Your task to perform on an android device: move a message to another label in the gmail app Image 0: 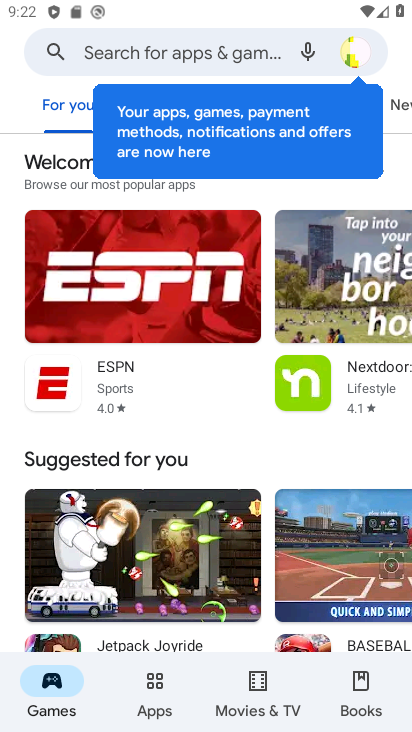
Step 0: press home button
Your task to perform on an android device: move a message to another label in the gmail app Image 1: 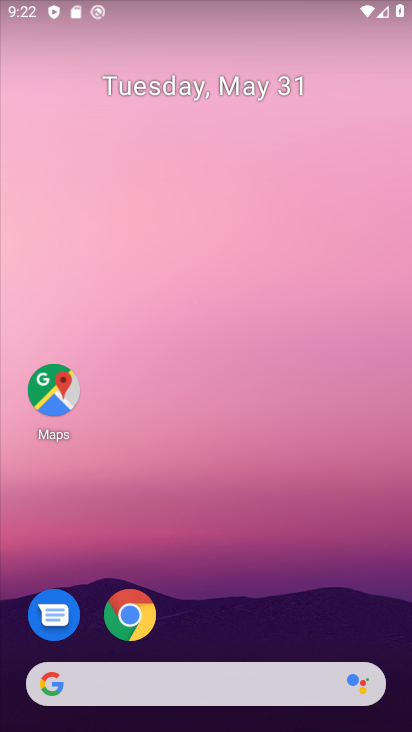
Step 1: drag from (249, 528) to (224, 39)
Your task to perform on an android device: move a message to another label in the gmail app Image 2: 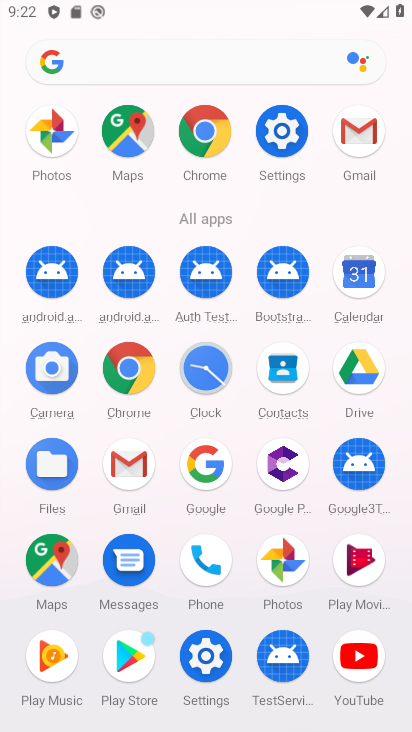
Step 2: click (129, 465)
Your task to perform on an android device: move a message to another label in the gmail app Image 3: 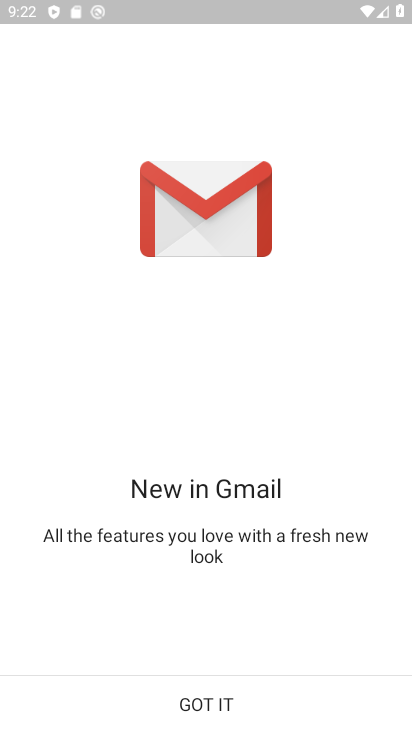
Step 3: click (221, 707)
Your task to perform on an android device: move a message to another label in the gmail app Image 4: 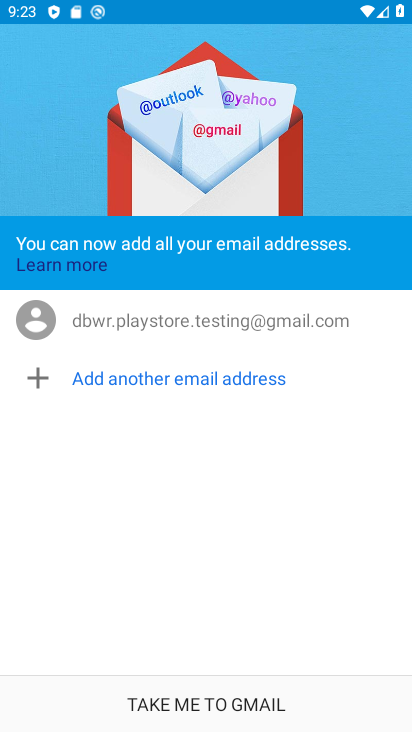
Step 4: click (206, 692)
Your task to perform on an android device: move a message to another label in the gmail app Image 5: 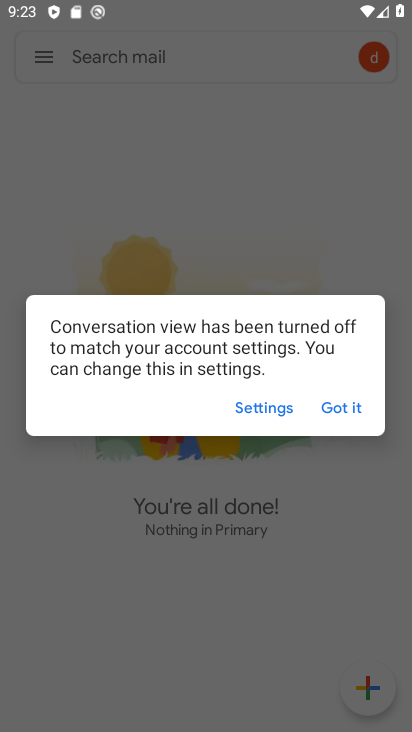
Step 5: click (348, 408)
Your task to perform on an android device: move a message to another label in the gmail app Image 6: 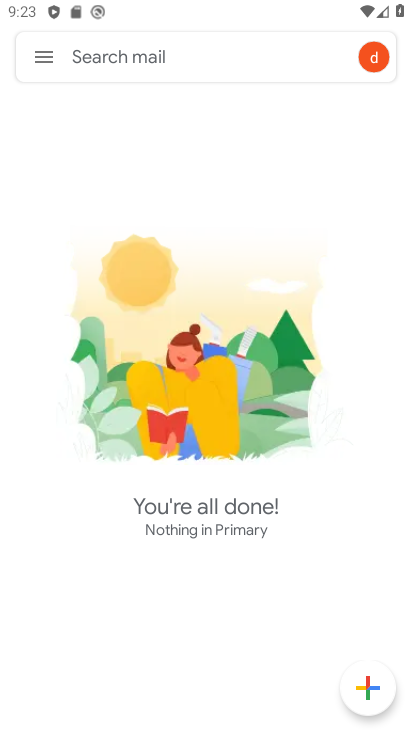
Step 6: click (55, 58)
Your task to perform on an android device: move a message to another label in the gmail app Image 7: 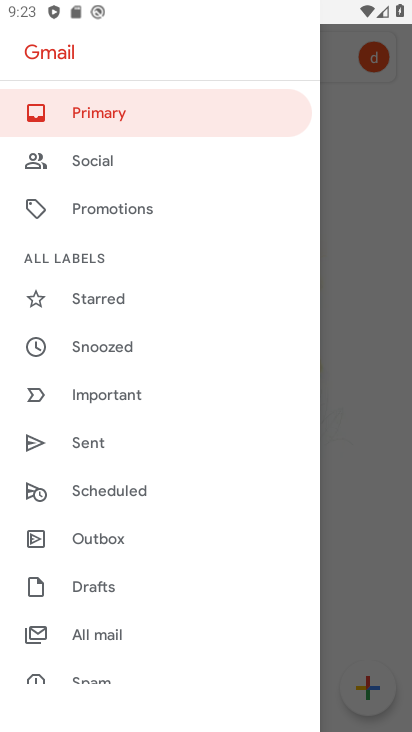
Step 7: click (159, 631)
Your task to perform on an android device: move a message to another label in the gmail app Image 8: 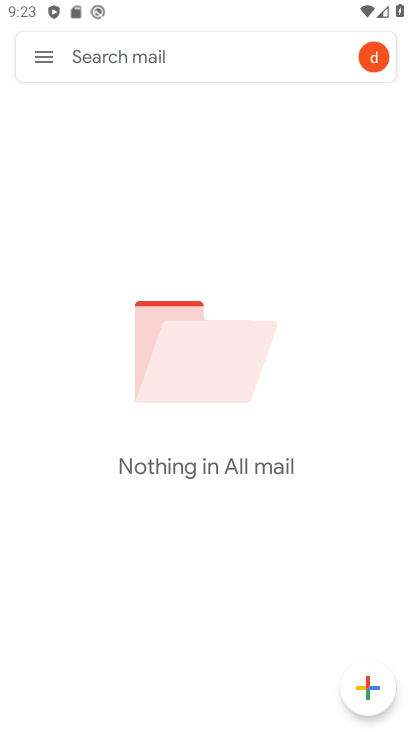
Step 8: task complete